Your task to perform on an android device: turn on the 12-hour format for clock Image 0: 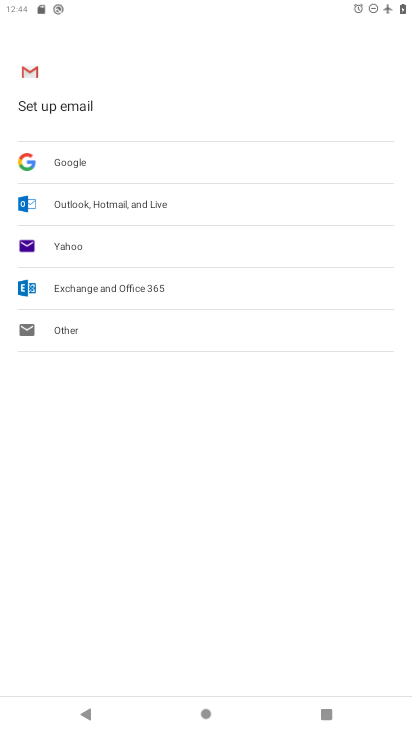
Step 0: press home button
Your task to perform on an android device: turn on the 12-hour format for clock Image 1: 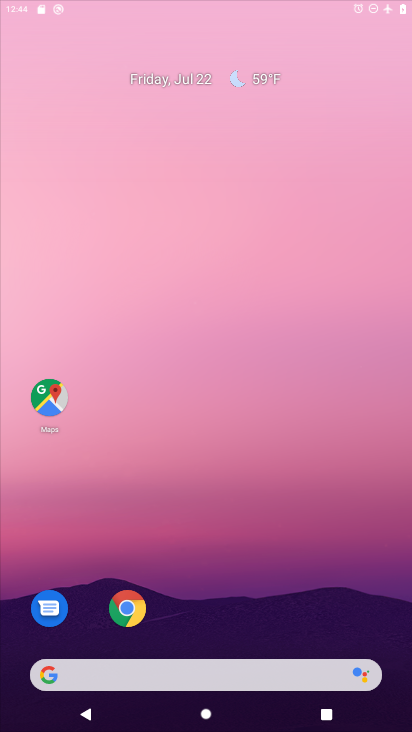
Step 1: drag from (387, 652) to (172, 3)
Your task to perform on an android device: turn on the 12-hour format for clock Image 2: 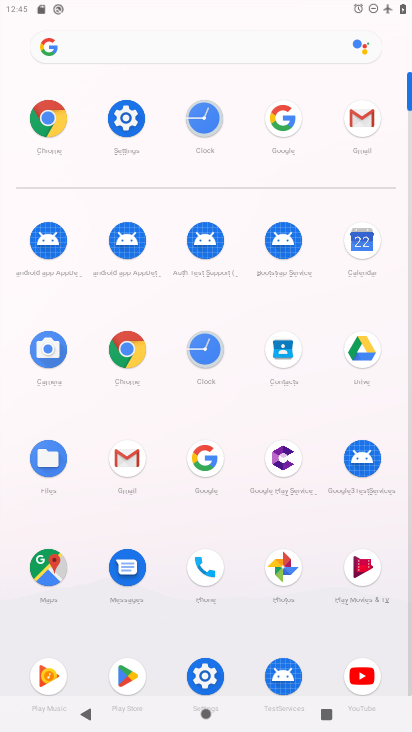
Step 2: click (202, 338)
Your task to perform on an android device: turn on the 12-hour format for clock Image 3: 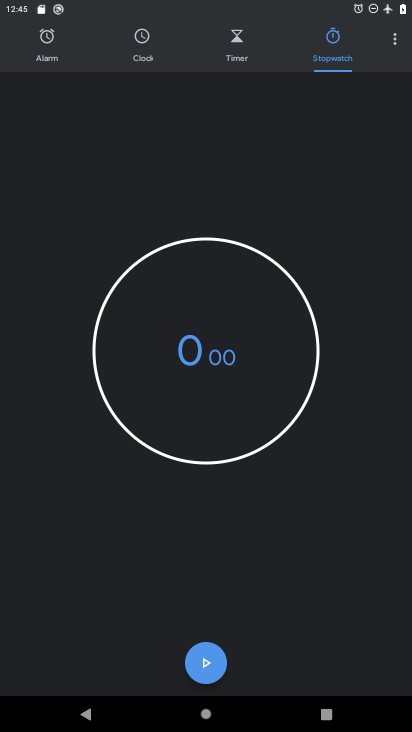
Step 3: click (405, 45)
Your task to perform on an android device: turn on the 12-hour format for clock Image 4: 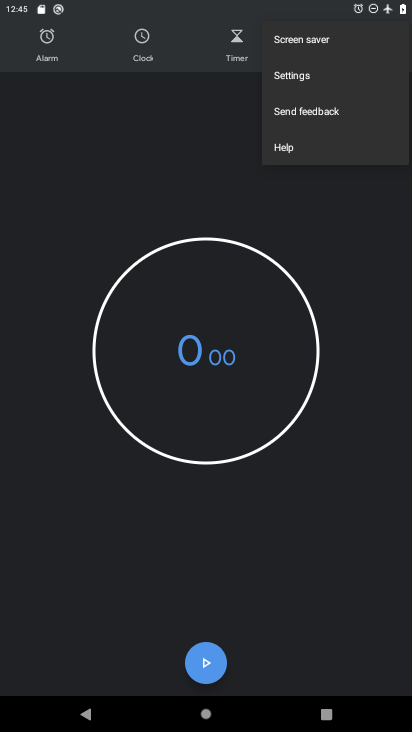
Step 4: click (288, 80)
Your task to perform on an android device: turn on the 12-hour format for clock Image 5: 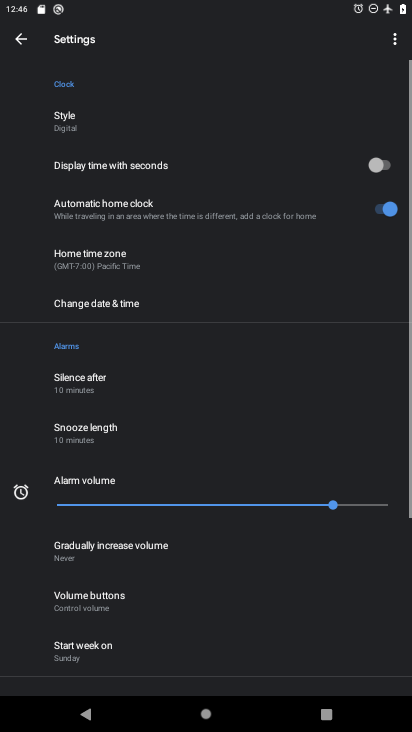
Step 5: click (113, 297)
Your task to perform on an android device: turn on the 12-hour format for clock Image 6: 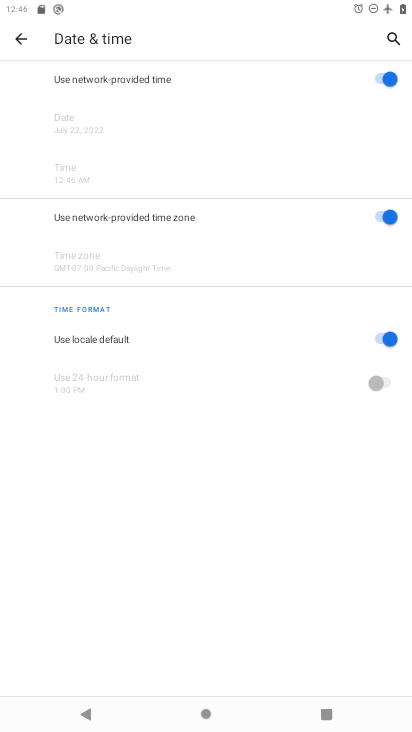
Step 6: task complete